Your task to perform on an android device: Is it going to rain today? Image 0: 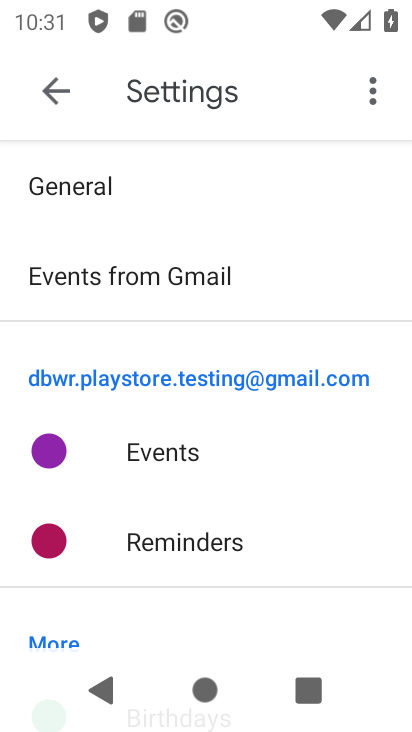
Step 0: press home button
Your task to perform on an android device: Is it going to rain today? Image 1: 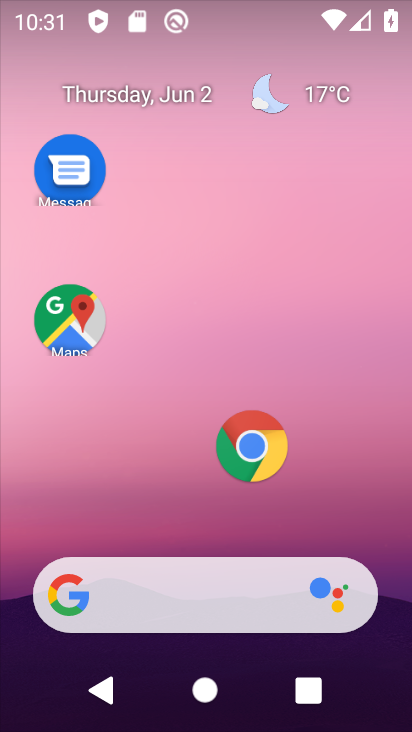
Step 1: click (241, 437)
Your task to perform on an android device: Is it going to rain today? Image 2: 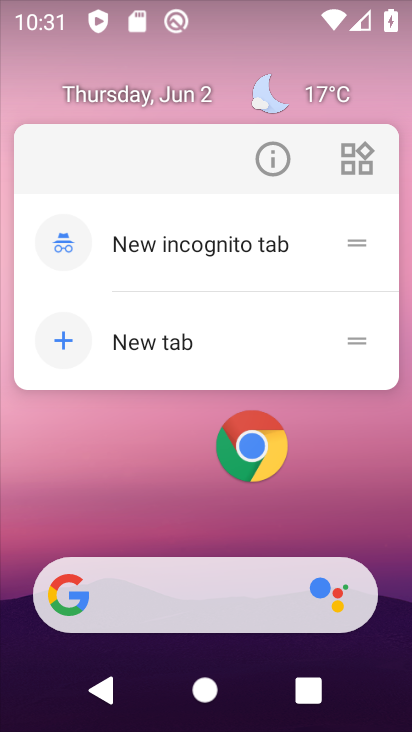
Step 2: click (241, 437)
Your task to perform on an android device: Is it going to rain today? Image 3: 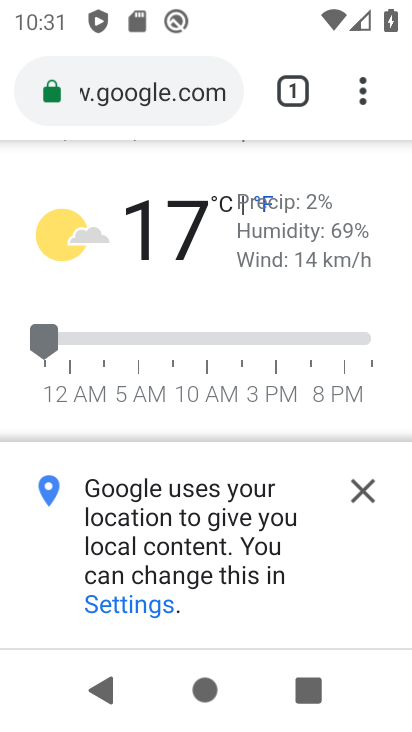
Step 3: click (161, 83)
Your task to perform on an android device: Is it going to rain today? Image 4: 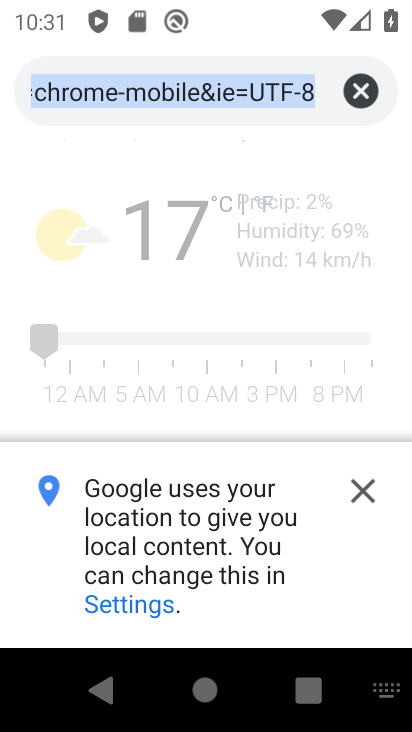
Step 4: click (359, 93)
Your task to perform on an android device: Is it going to rain today? Image 5: 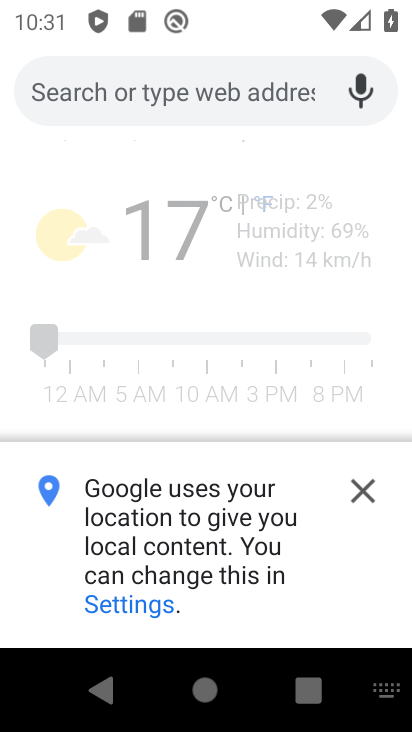
Step 5: type "Is it going to rain today?"
Your task to perform on an android device: Is it going to rain today? Image 6: 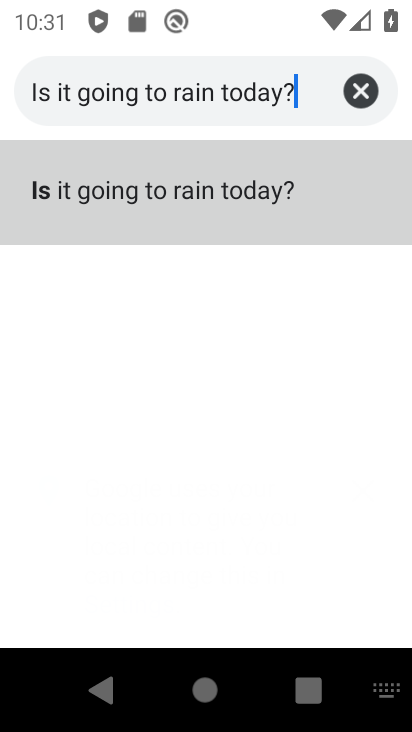
Step 6: type ""
Your task to perform on an android device: Is it going to rain today? Image 7: 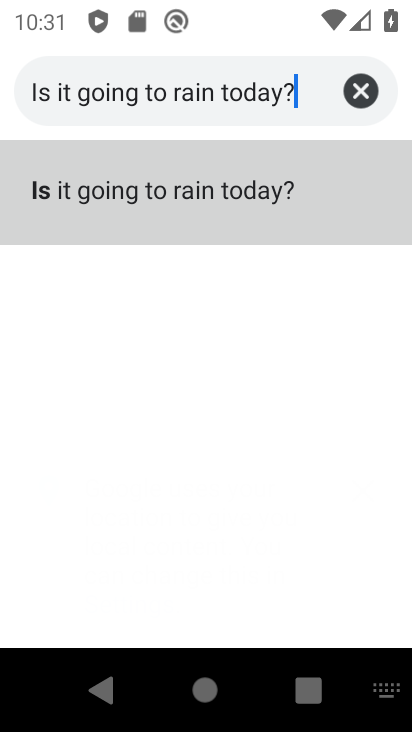
Step 7: click (186, 163)
Your task to perform on an android device: Is it going to rain today? Image 8: 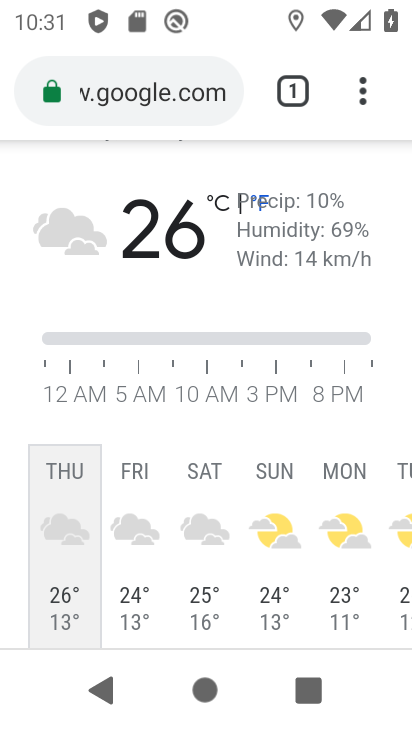
Step 8: task complete